Your task to perform on an android device: allow cookies in the chrome app Image 0: 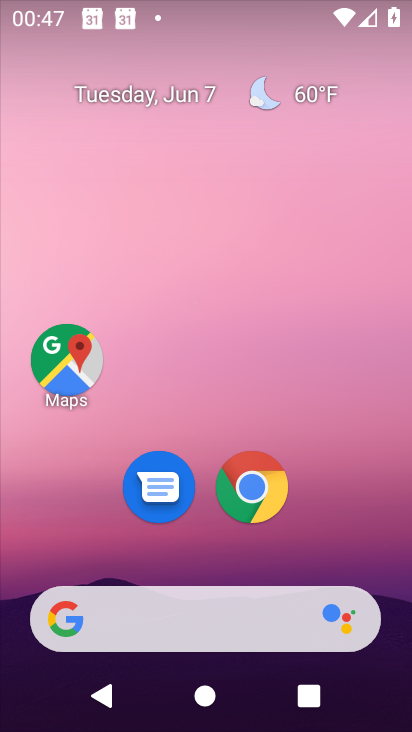
Step 0: click (270, 486)
Your task to perform on an android device: allow cookies in the chrome app Image 1: 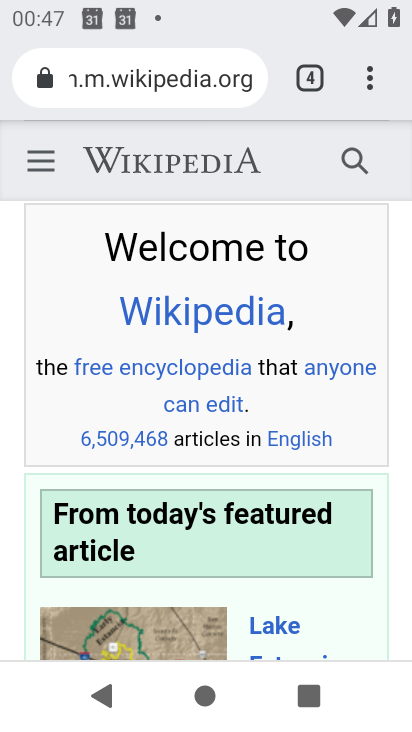
Step 1: click (376, 71)
Your task to perform on an android device: allow cookies in the chrome app Image 2: 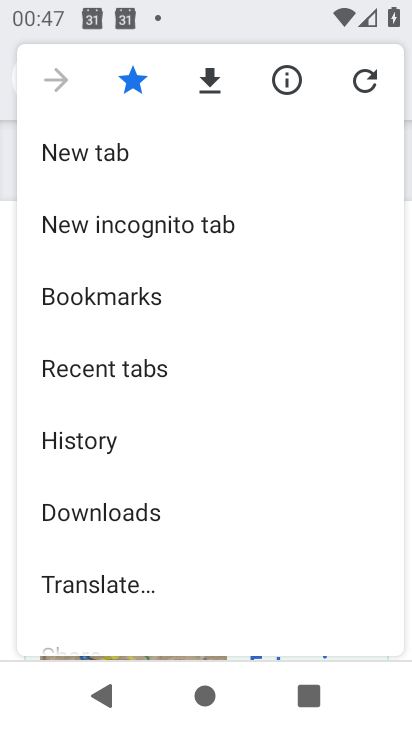
Step 2: drag from (190, 605) to (143, 185)
Your task to perform on an android device: allow cookies in the chrome app Image 3: 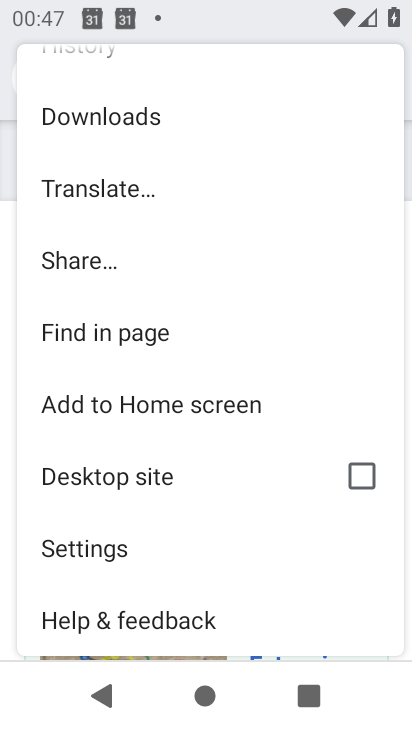
Step 3: click (186, 539)
Your task to perform on an android device: allow cookies in the chrome app Image 4: 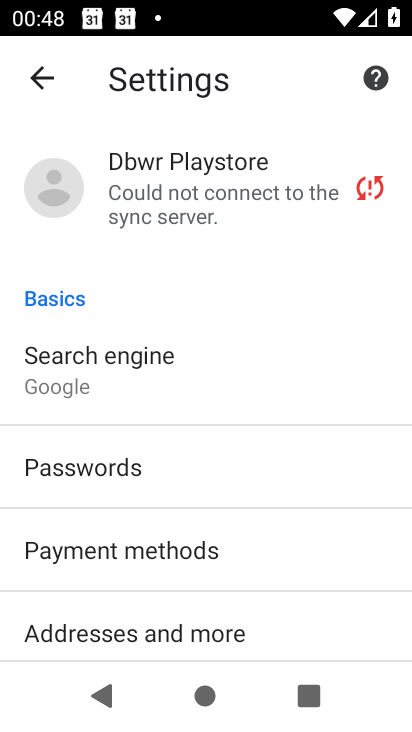
Step 4: drag from (271, 628) to (140, 131)
Your task to perform on an android device: allow cookies in the chrome app Image 5: 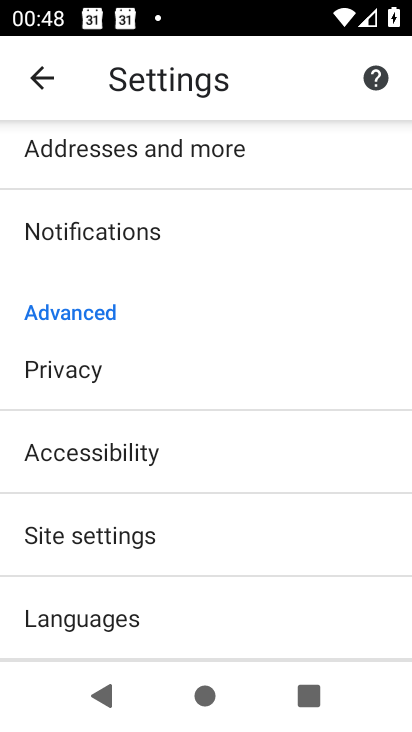
Step 5: drag from (160, 623) to (127, 396)
Your task to perform on an android device: allow cookies in the chrome app Image 6: 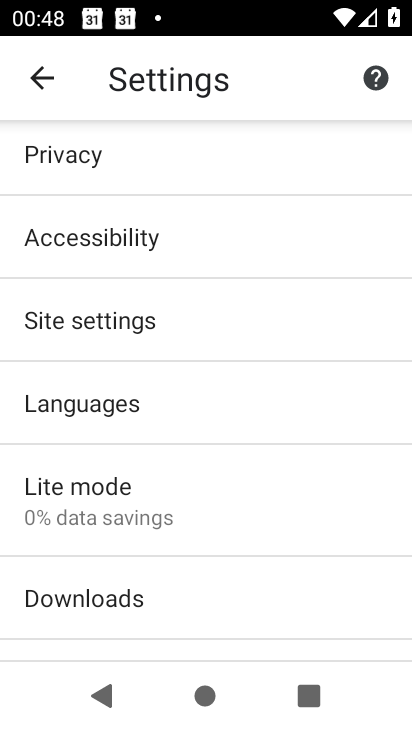
Step 6: click (117, 315)
Your task to perform on an android device: allow cookies in the chrome app Image 7: 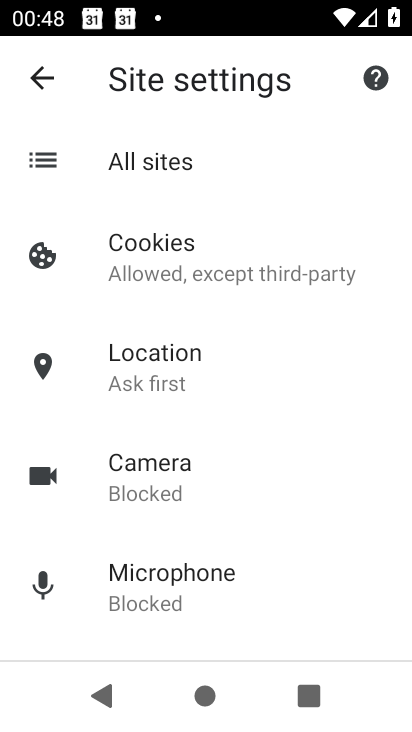
Step 7: click (173, 235)
Your task to perform on an android device: allow cookies in the chrome app Image 8: 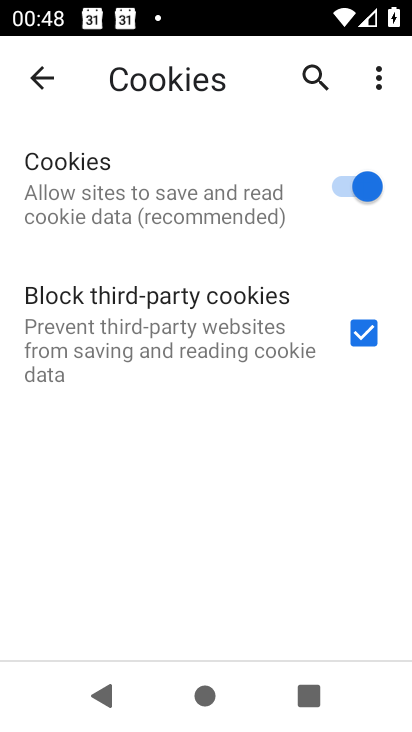
Step 8: task complete